Your task to perform on an android device: clear all cookies in the chrome app Image 0: 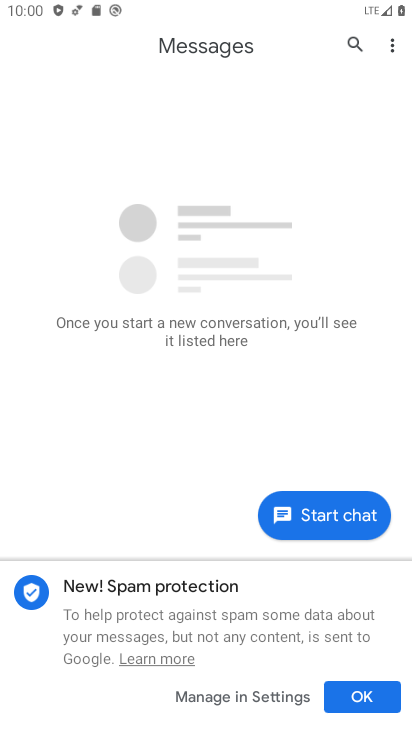
Step 0: press home button
Your task to perform on an android device: clear all cookies in the chrome app Image 1: 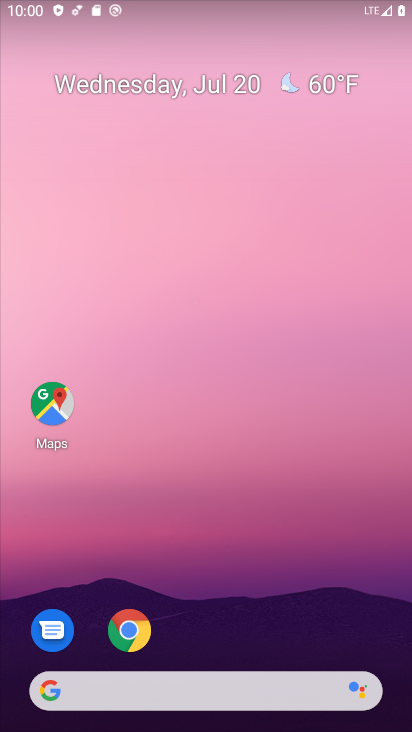
Step 1: click (137, 633)
Your task to perform on an android device: clear all cookies in the chrome app Image 2: 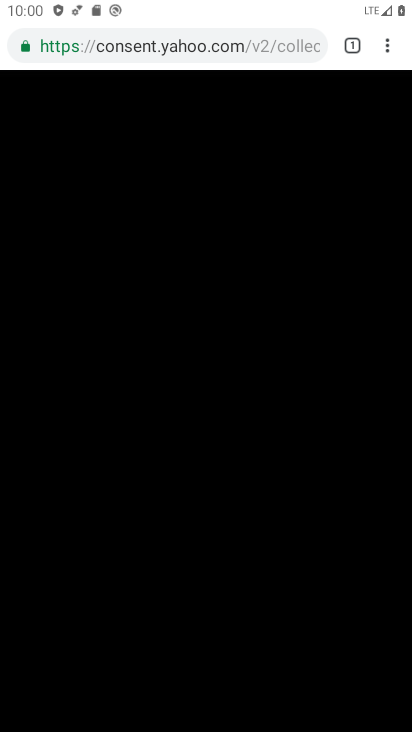
Step 2: click (389, 38)
Your task to perform on an android device: clear all cookies in the chrome app Image 3: 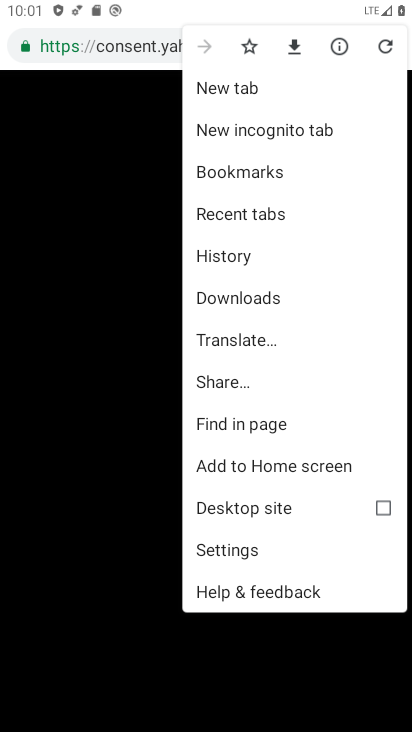
Step 3: click (237, 245)
Your task to perform on an android device: clear all cookies in the chrome app Image 4: 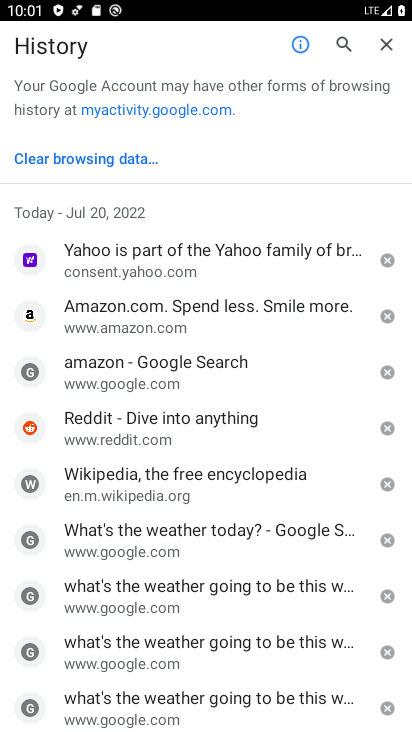
Step 4: click (113, 159)
Your task to perform on an android device: clear all cookies in the chrome app Image 5: 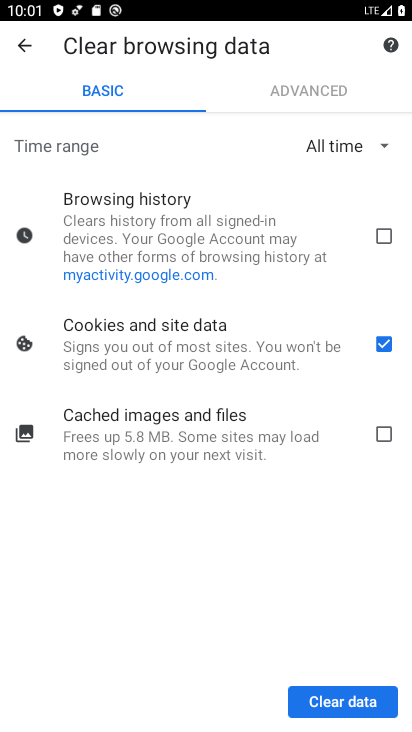
Step 5: click (367, 714)
Your task to perform on an android device: clear all cookies in the chrome app Image 6: 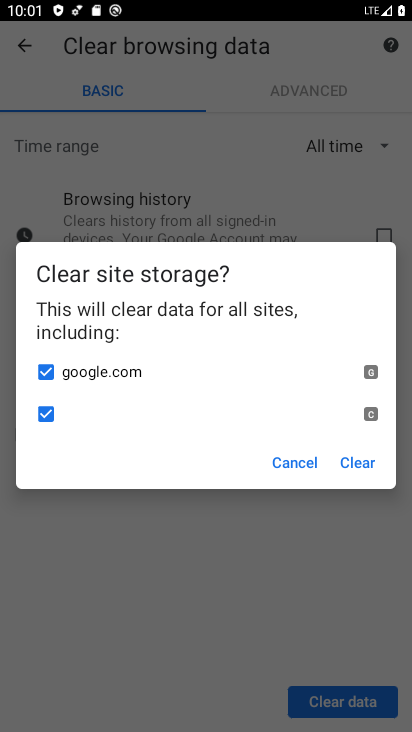
Step 6: click (362, 468)
Your task to perform on an android device: clear all cookies in the chrome app Image 7: 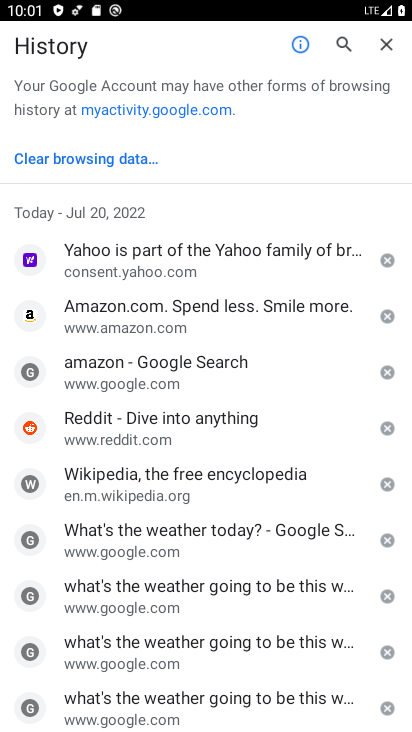
Step 7: task complete